Your task to perform on an android device: Go to Reddit.com Image 0: 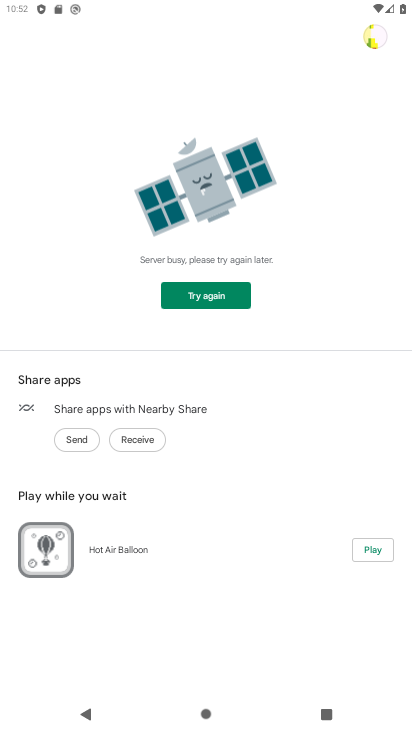
Step 0: press home button
Your task to perform on an android device: Go to Reddit.com Image 1: 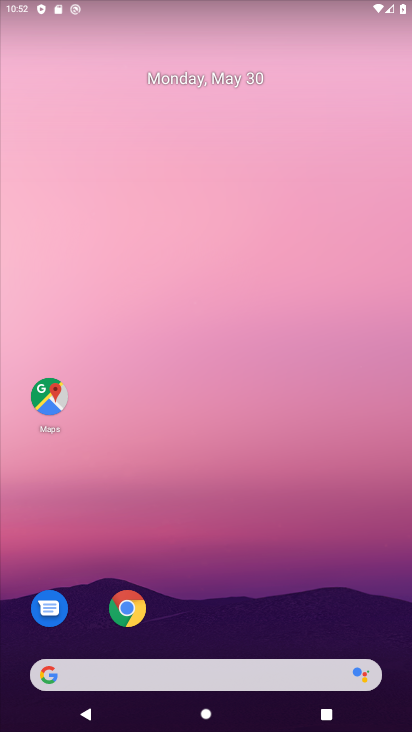
Step 1: click (131, 607)
Your task to perform on an android device: Go to Reddit.com Image 2: 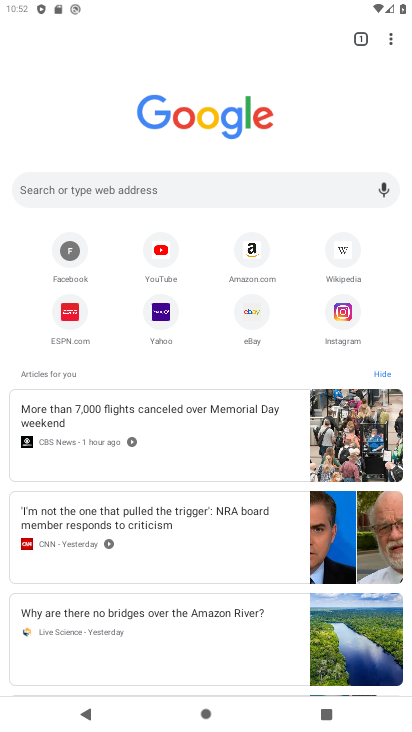
Step 2: click (60, 192)
Your task to perform on an android device: Go to Reddit.com Image 3: 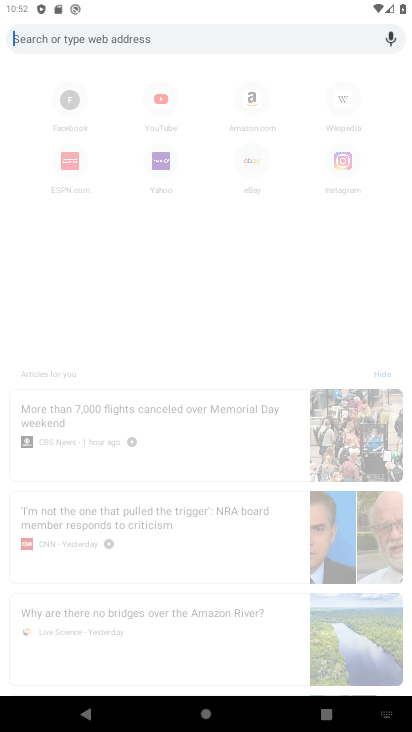
Step 3: type "reddit.com"
Your task to perform on an android device: Go to Reddit.com Image 4: 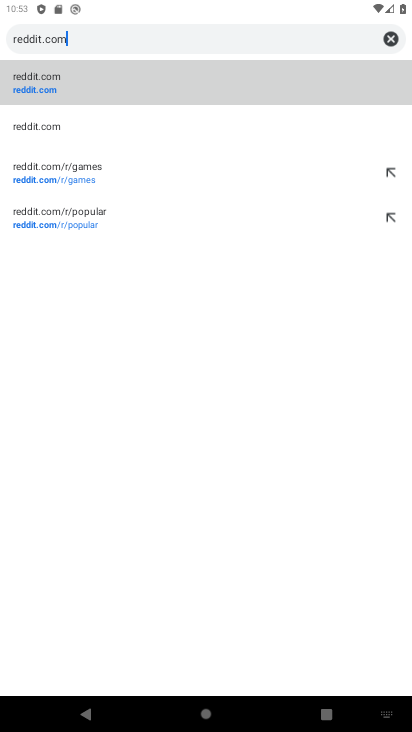
Step 4: click (30, 83)
Your task to perform on an android device: Go to Reddit.com Image 5: 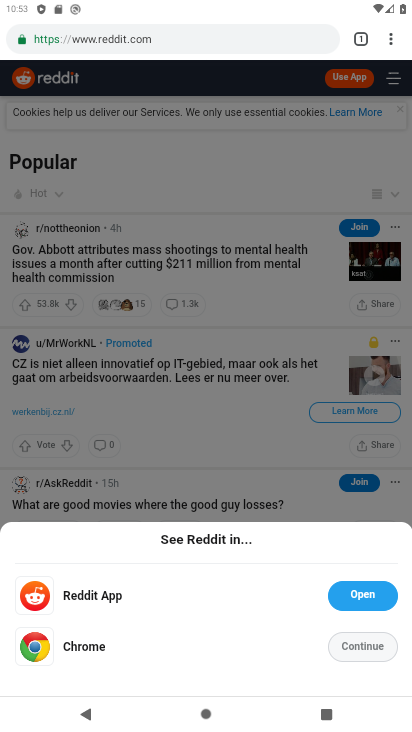
Step 5: task complete